Your task to perform on an android device: Go to location settings Image 0: 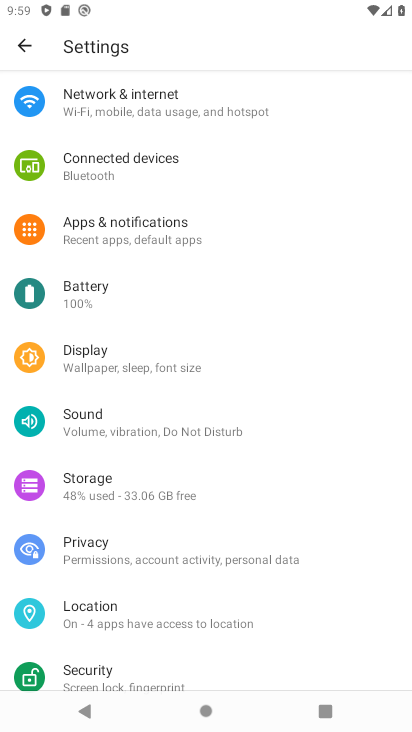
Step 0: press home button
Your task to perform on an android device: Go to location settings Image 1: 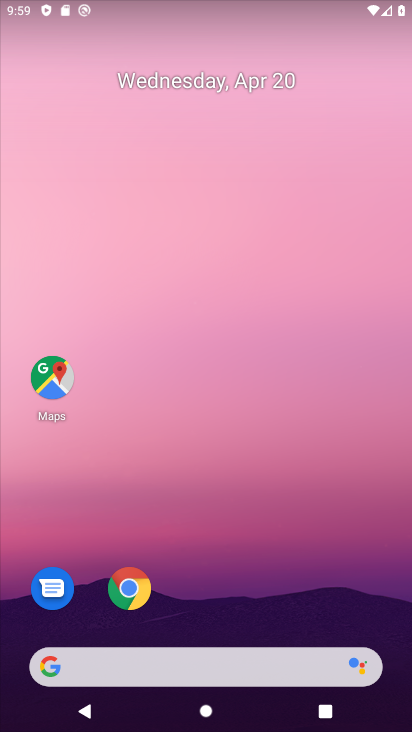
Step 1: drag from (258, 707) to (240, 185)
Your task to perform on an android device: Go to location settings Image 2: 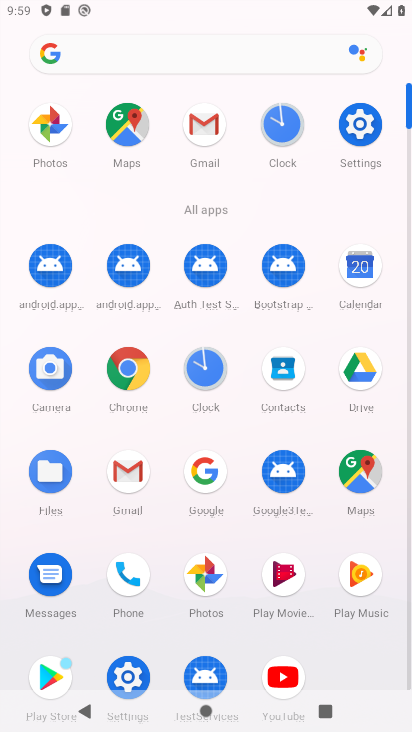
Step 2: click (128, 668)
Your task to perform on an android device: Go to location settings Image 3: 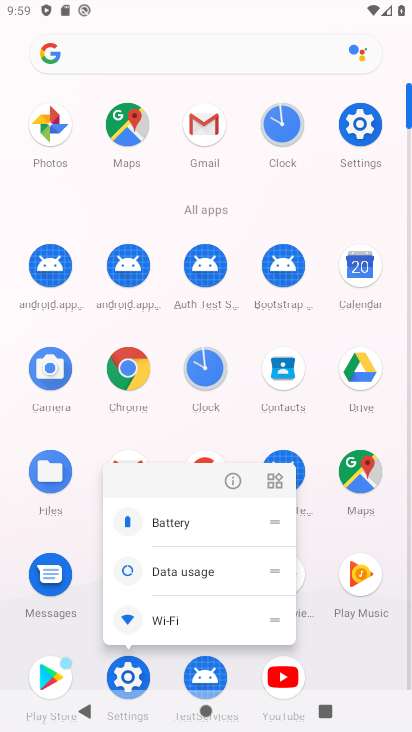
Step 3: click (124, 672)
Your task to perform on an android device: Go to location settings Image 4: 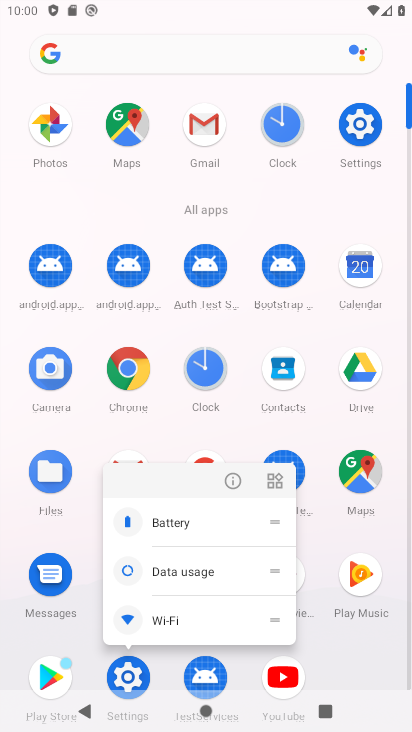
Step 4: click (124, 672)
Your task to perform on an android device: Go to location settings Image 5: 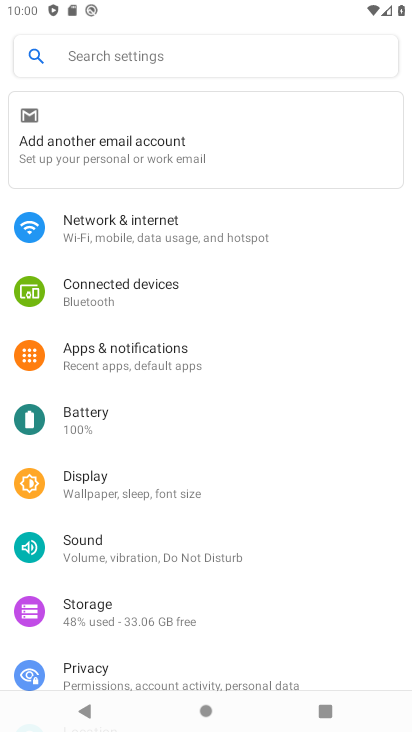
Step 5: drag from (166, 642) to (214, 329)
Your task to perform on an android device: Go to location settings Image 6: 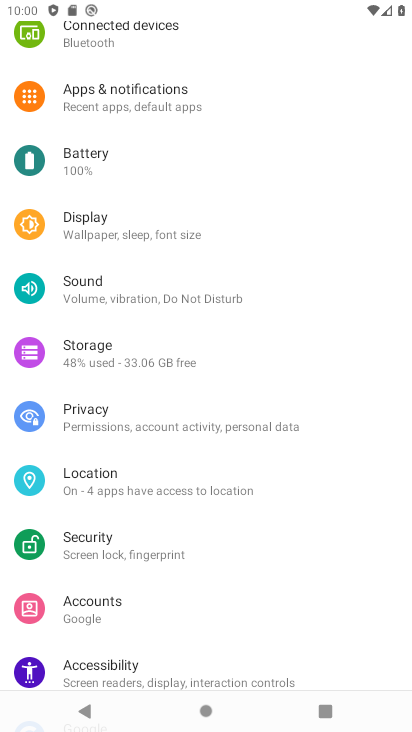
Step 6: click (117, 491)
Your task to perform on an android device: Go to location settings Image 7: 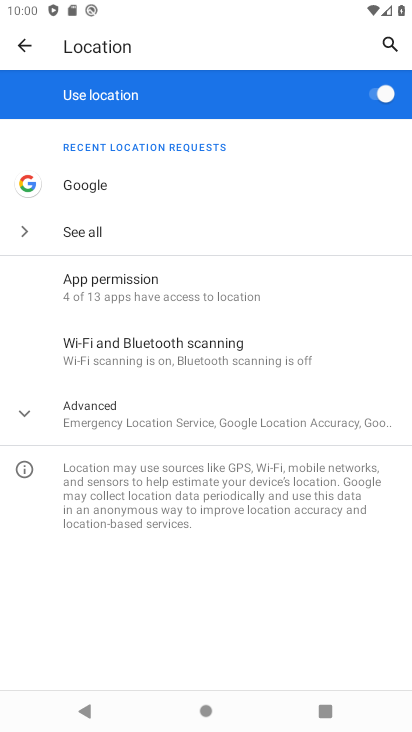
Step 7: task complete